Your task to perform on an android device: see creations saved in the google photos Image 0: 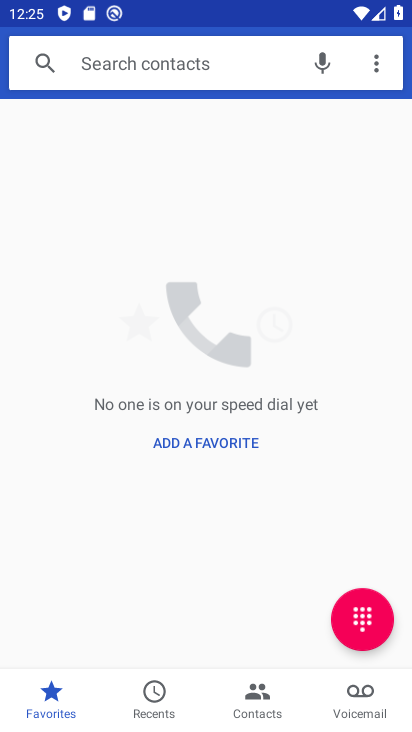
Step 0: press home button
Your task to perform on an android device: see creations saved in the google photos Image 1: 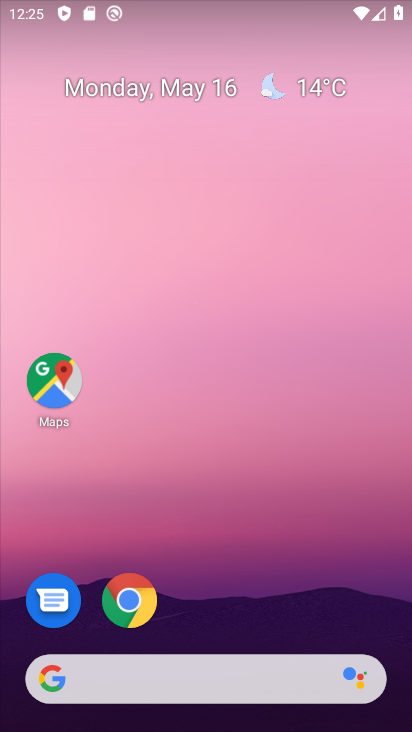
Step 1: drag from (238, 621) to (216, 95)
Your task to perform on an android device: see creations saved in the google photos Image 2: 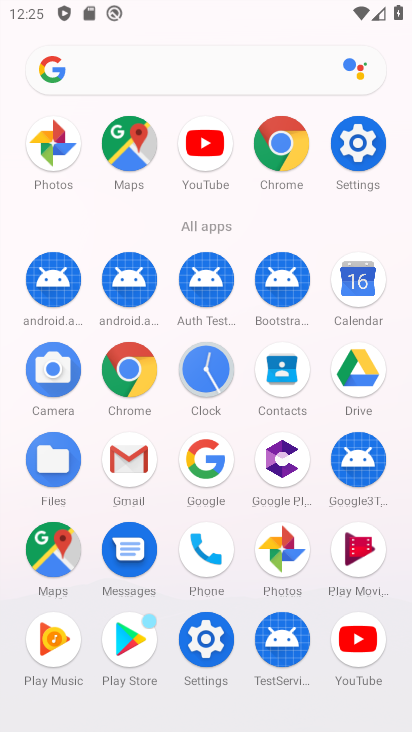
Step 2: click (281, 543)
Your task to perform on an android device: see creations saved in the google photos Image 3: 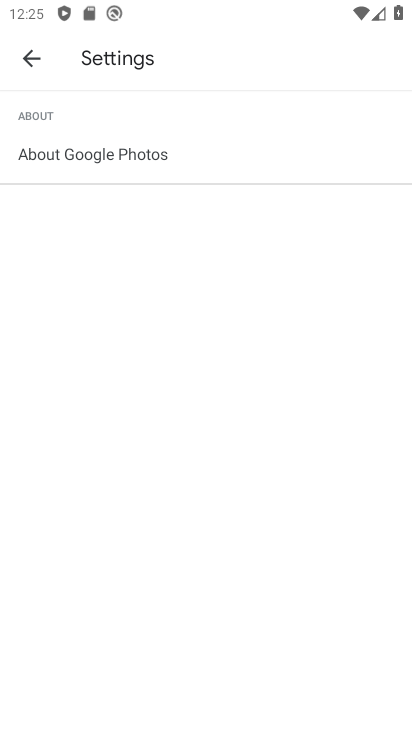
Step 3: click (31, 57)
Your task to perform on an android device: see creations saved in the google photos Image 4: 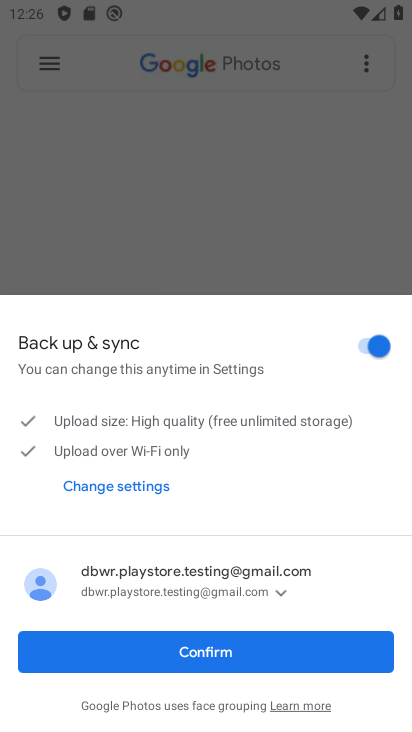
Step 4: click (173, 632)
Your task to perform on an android device: see creations saved in the google photos Image 5: 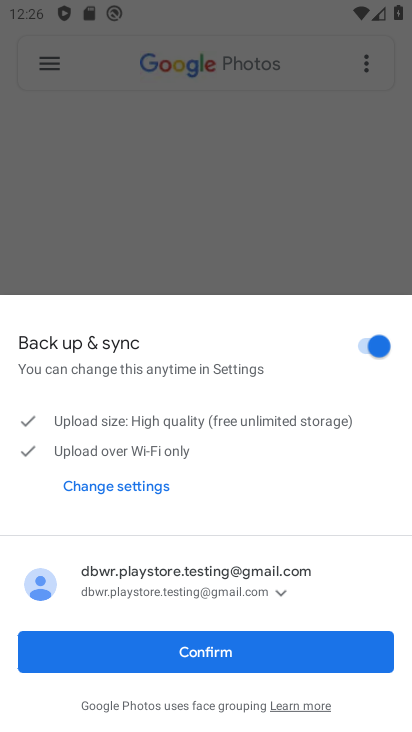
Step 5: click (177, 653)
Your task to perform on an android device: see creations saved in the google photos Image 6: 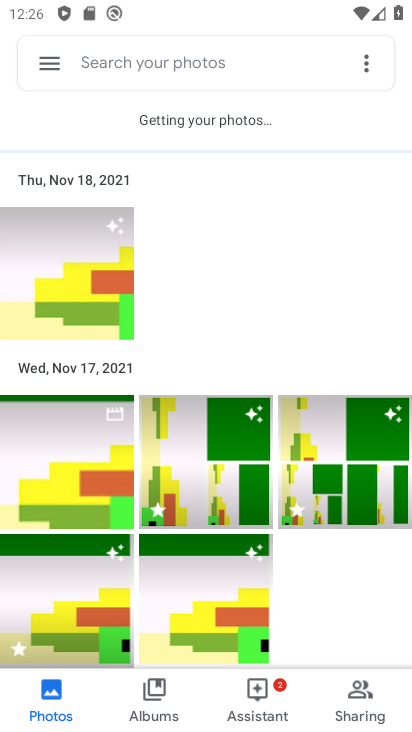
Step 6: click (137, 63)
Your task to perform on an android device: see creations saved in the google photos Image 7: 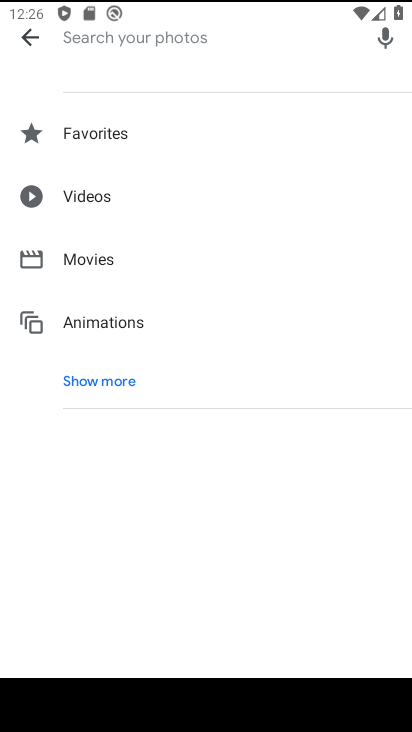
Step 7: click (124, 69)
Your task to perform on an android device: see creations saved in the google photos Image 8: 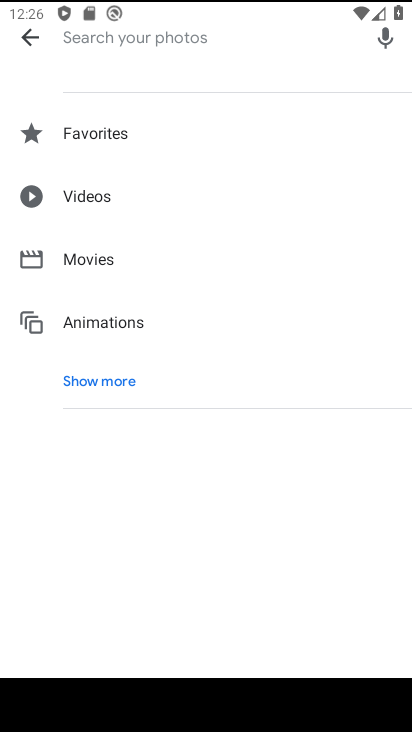
Step 8: click (115, 381)
Your task to perform on an android device: see creations saved in the google photos Image 9: 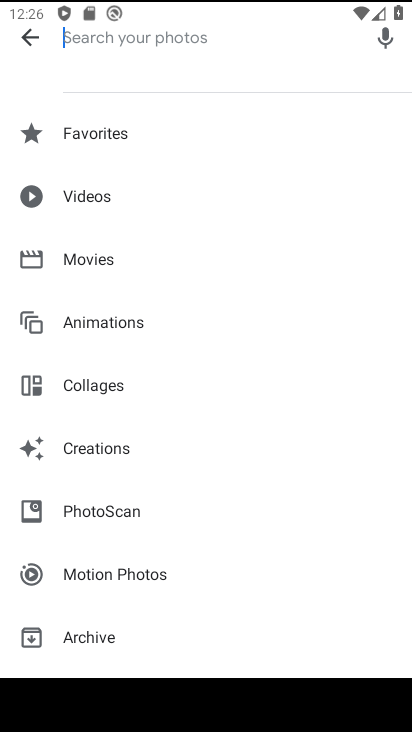
Step 9: click (114, 447)
Your task to perform on an android device: see creations saved in the google photos Image 10: 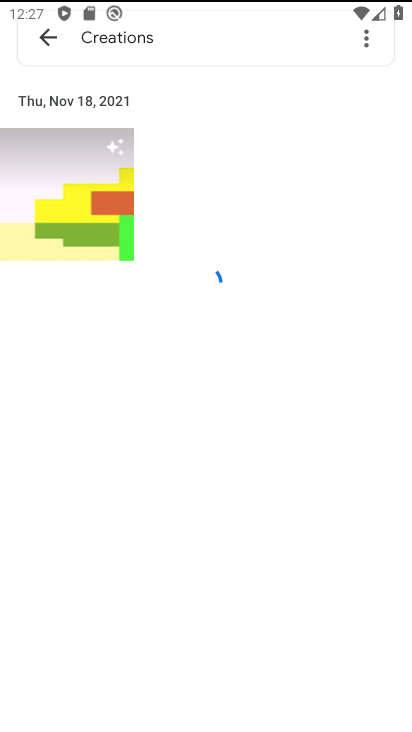
Step 10: task complete